Your task to perform on an android device: see creations saved in the google photos Image 0: 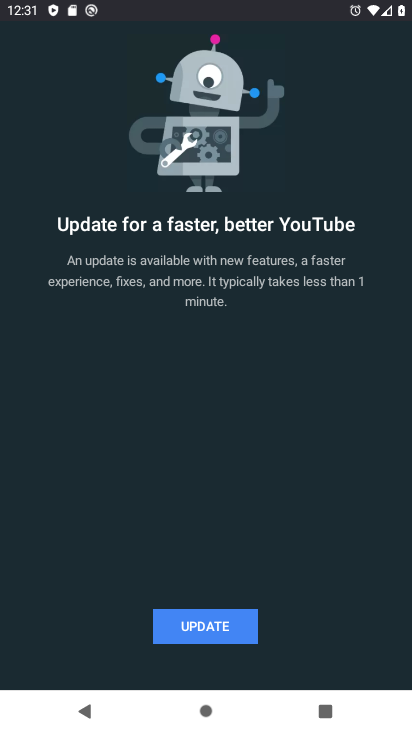
Step 0: press home button
Your task to perform on an android device: see creations saved in the google photos Image 1: 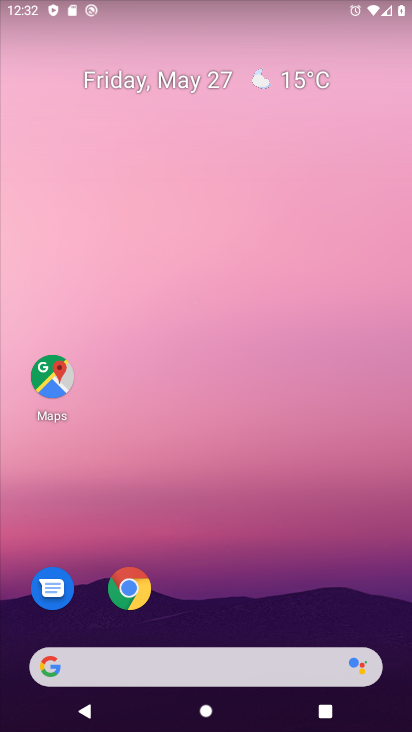
Step 1: drag from (360, 608) to (315, 340)
Your task to perform on an android device: see creations saved in the google photos Image 2: 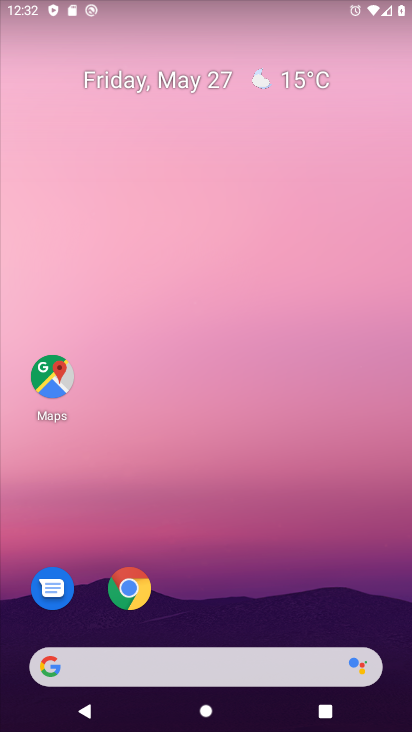
Step 2: drag from (371, 604) to (306, 222)
Your task to perform on an android device: see creations saved in the google photos Image 3: 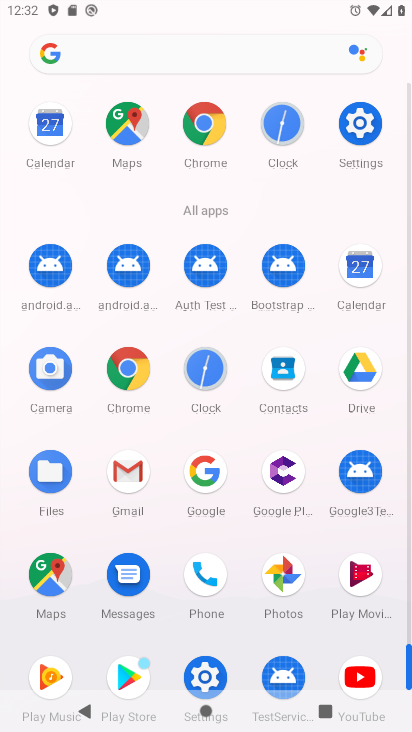
Step 3: click (284, 580)
Your task to perform on an android device: see creations saved in the google photos Image 4: 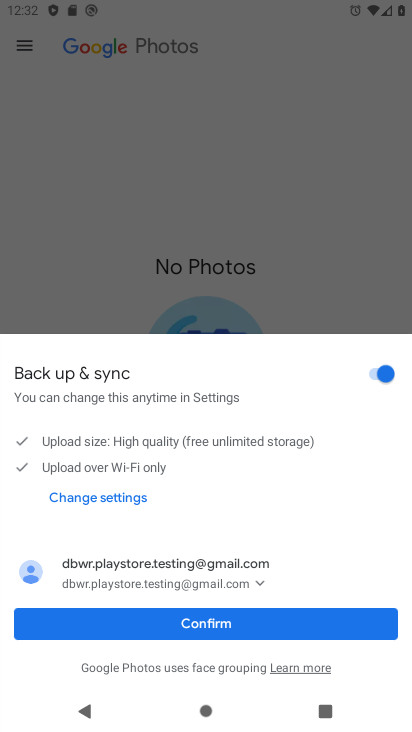
Step 4: click (175, 619)
Your task to perform on an android device: see creations saved in the google photos Image 5: 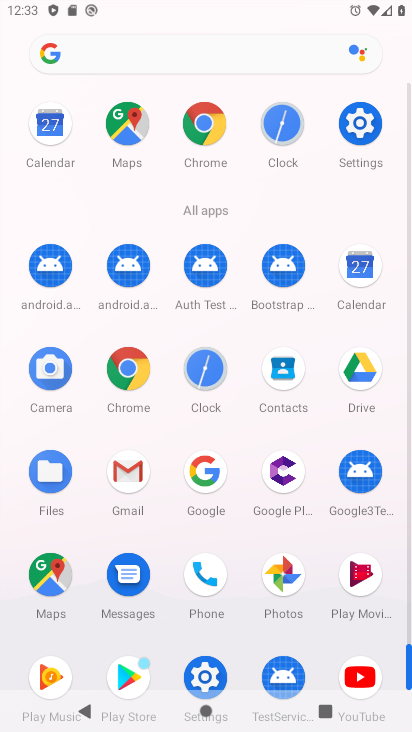
Step 5: click (279, 568)
Your task to perform on an android device: see creations saved in the google photos Image 6: 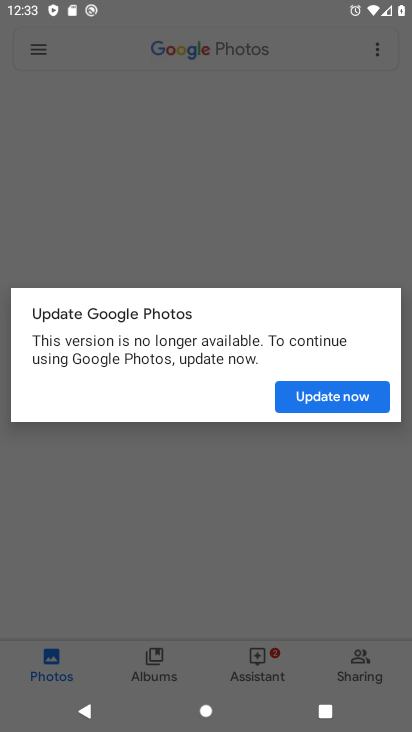
Step 6: click (331, 395)
Your task to perform on an android device: see creations saved in the google photos Image 7: 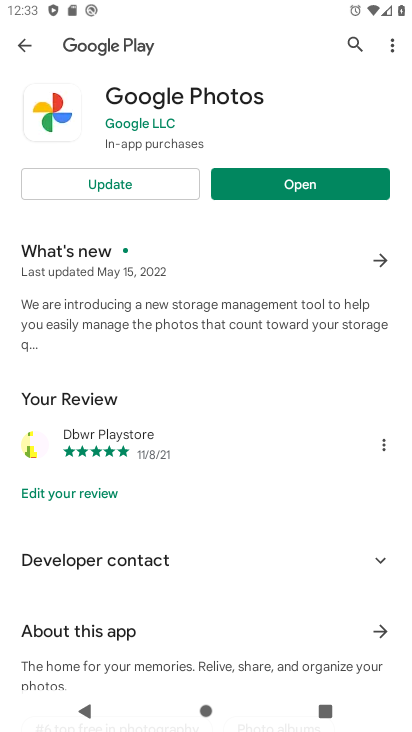
Step 7: click (112, 184)
Your task to perform on an android device: see creations saved in the google photos Image 8: 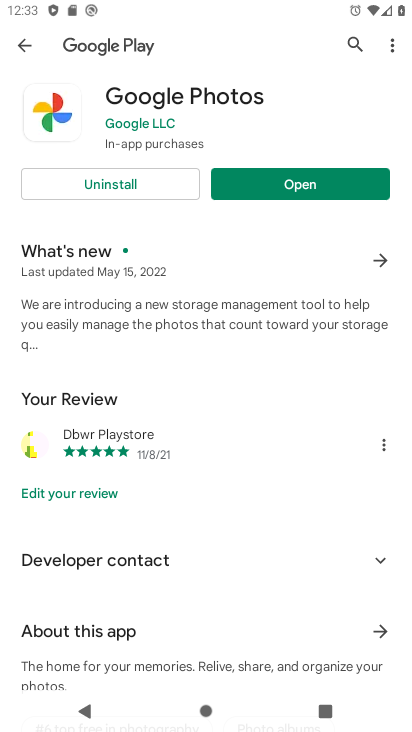
Step 8: click (294, 183)
Your task to perform on an android device: see creations saved in the google photos Image 9: 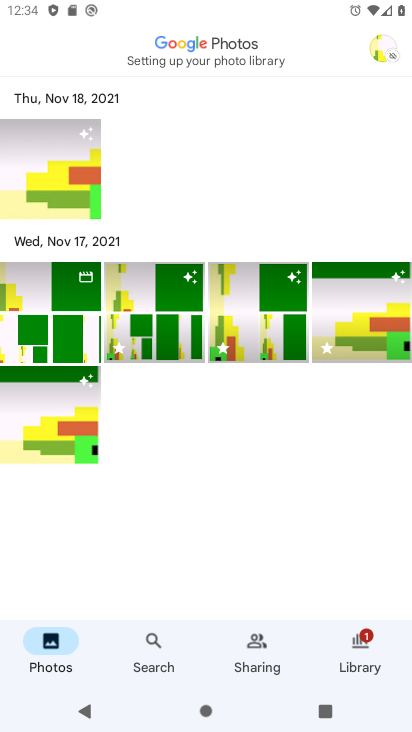
Step 9: task complete